Your task to perform on an android device: open app "Roku - Official Remote Control" (install if not already installed) Image 0: 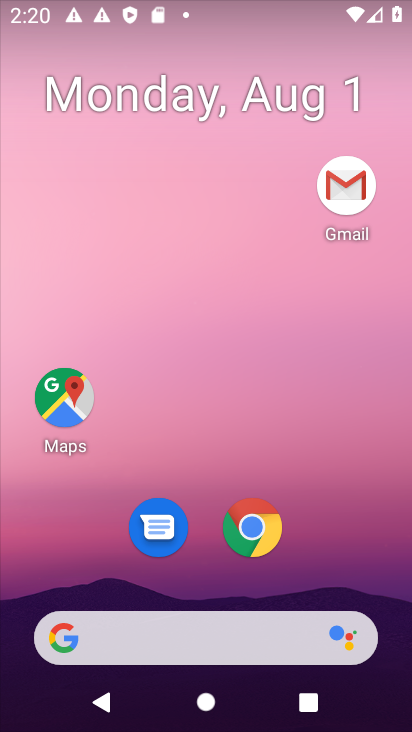
Step 0: drag from (315, 639) to (270, 111)
Your task to perform on an android device: open app "Roku - Official Remote Control" (install if not already installed) Image 1: 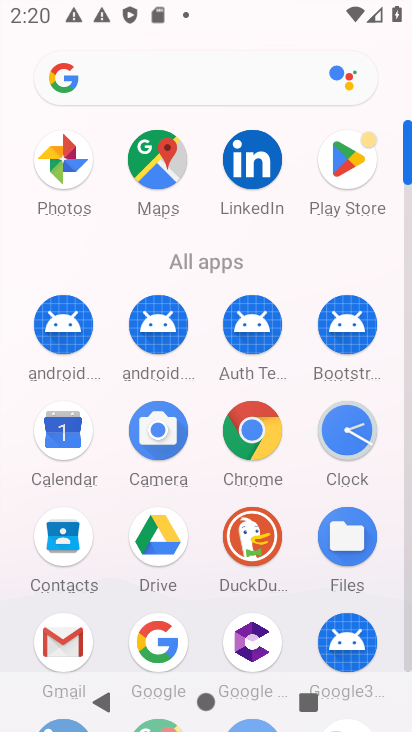
Step 1: drag from (283, 568) to (268, 173)
Your task to perform on an android device: open app "Roku - Official Remote Control" (install if not already installed) Image 2: 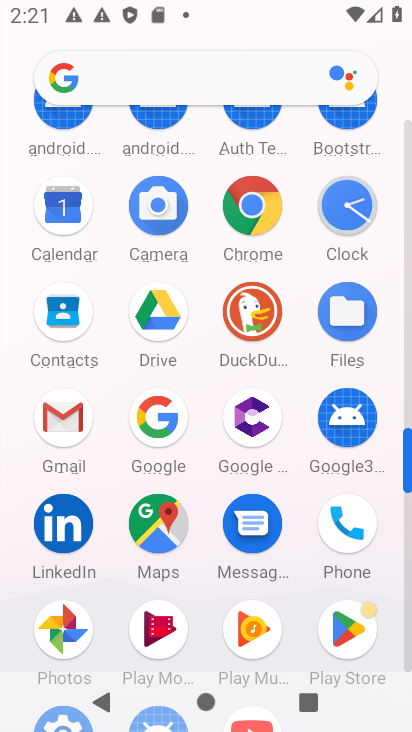
Step 2: drag from (286, 549) to (293, 278)
Your task to perform on an android device: open app "Roku - Official Remote Control" (install if not already installed) Image 3: 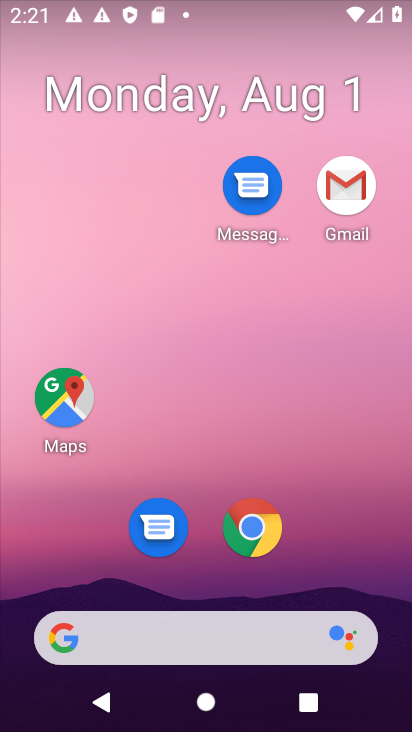
Step 3: drag from (342, 518) to (358, 11)
Your task to perform on an android device: open app "Roku - Official Remote Control" (install if not already installed) Image 4: 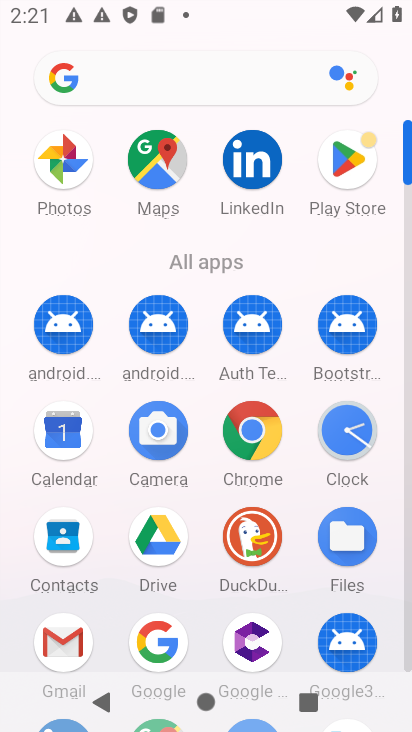
Step 4: click (345, 165)
Your task to perform on an android device: open app "Roku - Official Remote Control" (install if not already installed) Image 5: 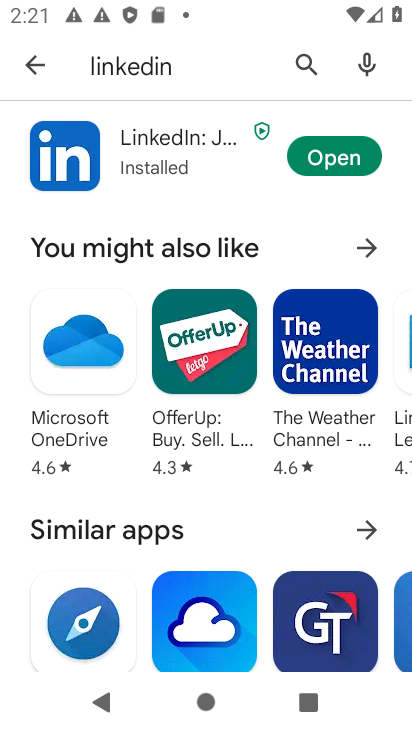
Step 5: click (304, 63)
Your task to perform on an android device: open app "Roku - Official Remote Control" (install if not already installed) Image 6: 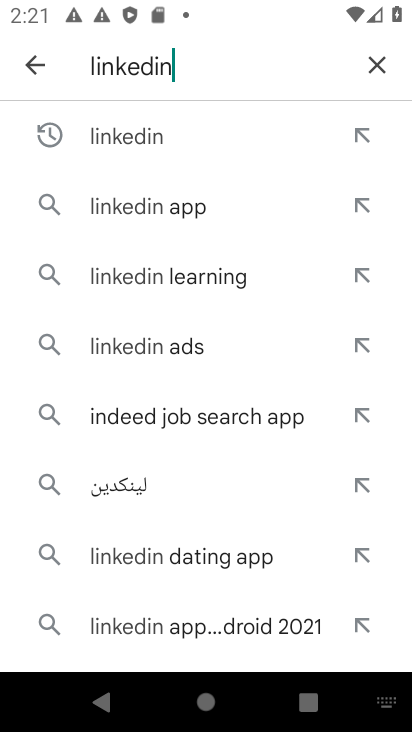
Step 6: click (383, 63)
Your task to perform on an android device: open app "Roku - Official Remote Control" (install if not already installed) Image 7: 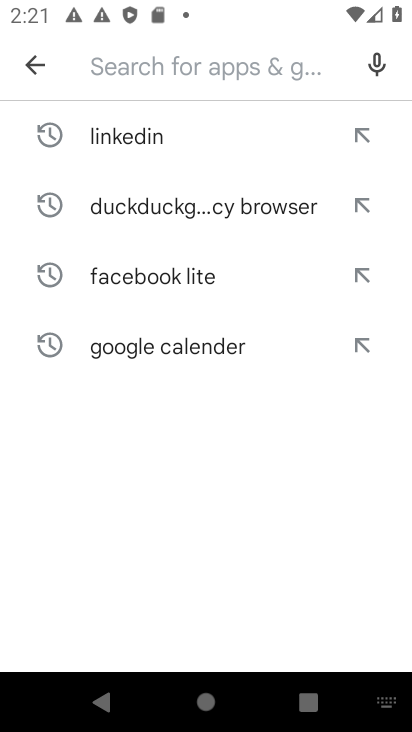
Step 7: type "roku - official remote control"
Your task to perform on an android device: open app "Roku - Official Remote Control" (install if not already installed) Image 8: 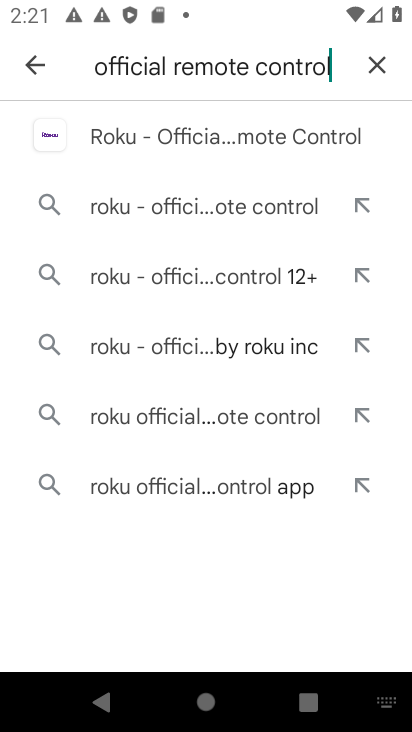
Step 8: click (320, 125)
Your task to perform on an android device: open app "Roku - Official Remote Control" (install if not already installed) Image 9: 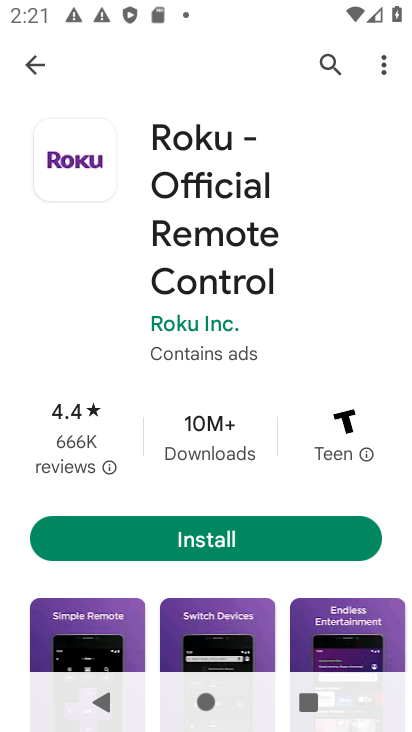
Step 9: task complete